Your task to perform on an android device: turn off airplane mode Image 0: 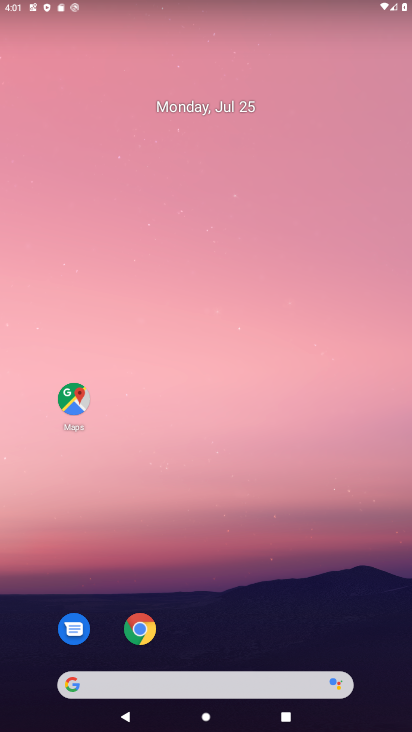
Step 0: drag from (178, 667) to (224, 12)
Your task to perform on an android device: turn off airplane mode Image 1: 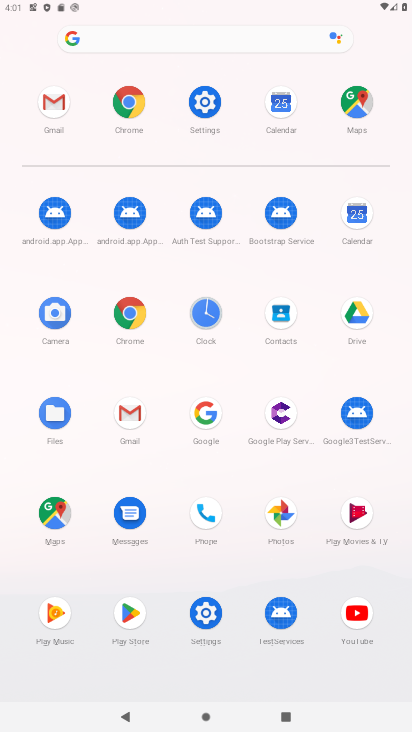
Step 1: click (197, 101)
Your task to perform on an android device: turn off airplane mode Image 2: 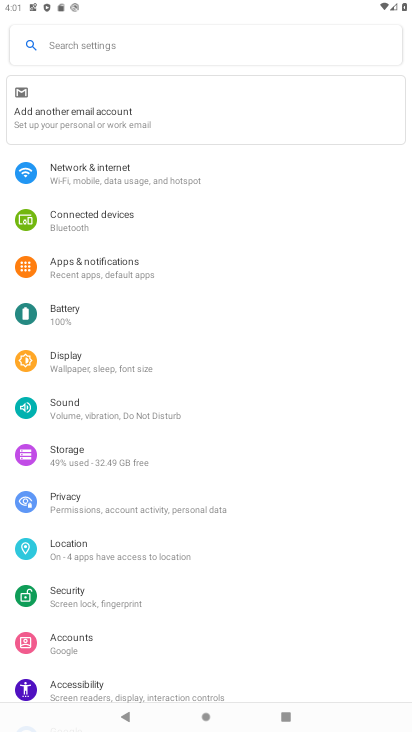
Step 2: click (127, 179)
Your task to perform on an android device: turn off airplane mode Image 3: 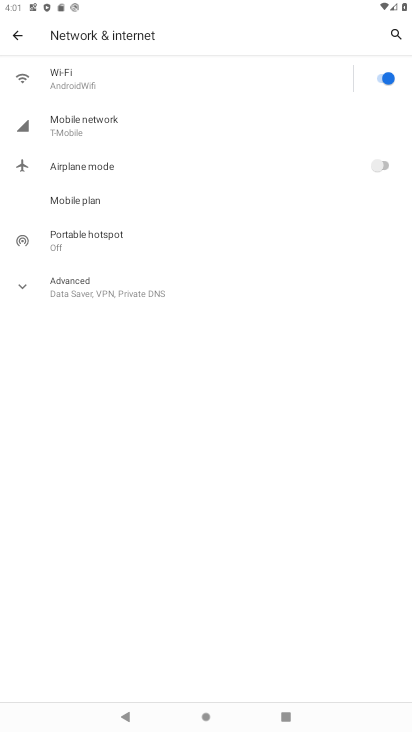
Step 3: task complete